Your task to perform on an android device: Set the phone to "Do not disturb". Image 0: 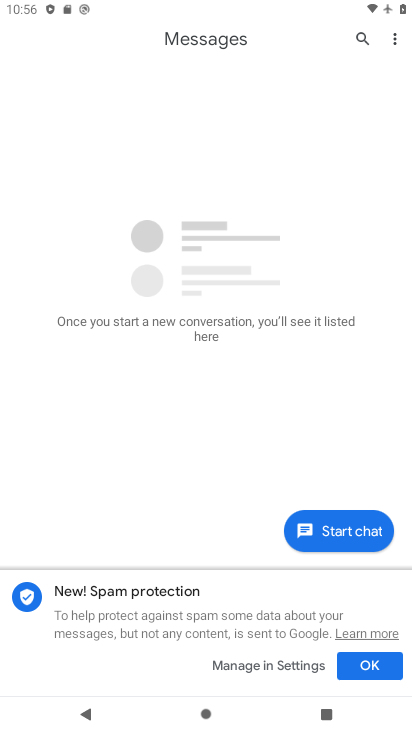
Step 0: press home button
Your task to perform on an android device: Set the phone to "Do not disturb". Image 1: 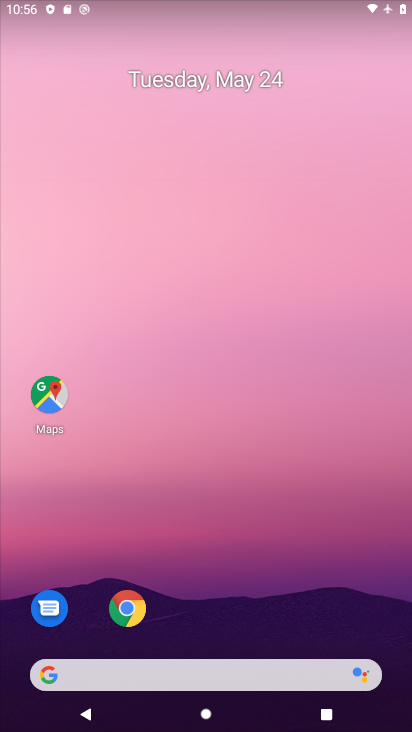
Step 1: drag from (383, 617) to (305, 135)
Your task to perform on an android device: Set the phone to "Do not disturb". Image 2: 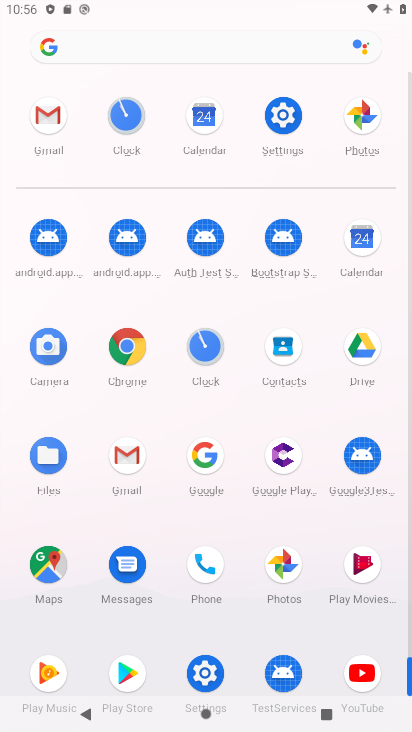
Step 2: click (199, 669)
Your task to perform on an android device: Set the phone to "Do not disturb". Image 3: 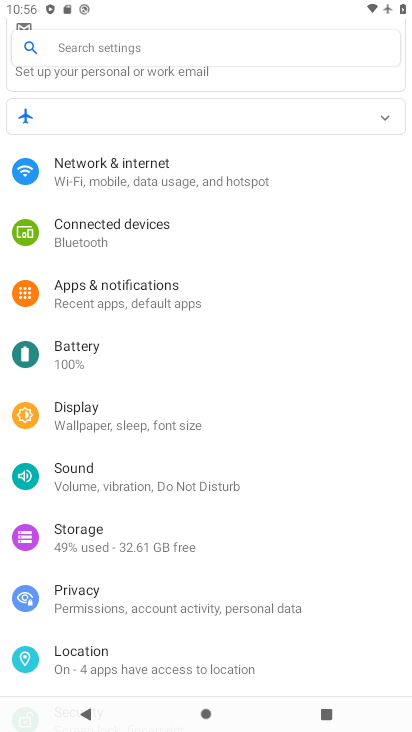
Step 3: click (78, 476)
Your task to perform on an android device: Set the phone to "Do not disturb". Image 4: 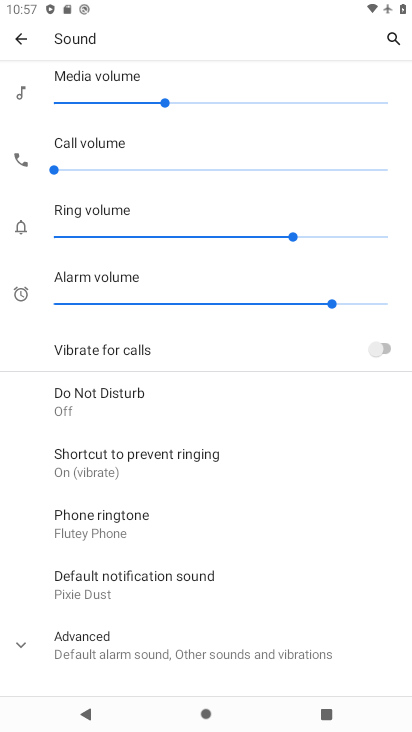
Step 4: click (91, 391)
Your task to perform on an android device: Set the phone to "Do not disturb". Image 5: 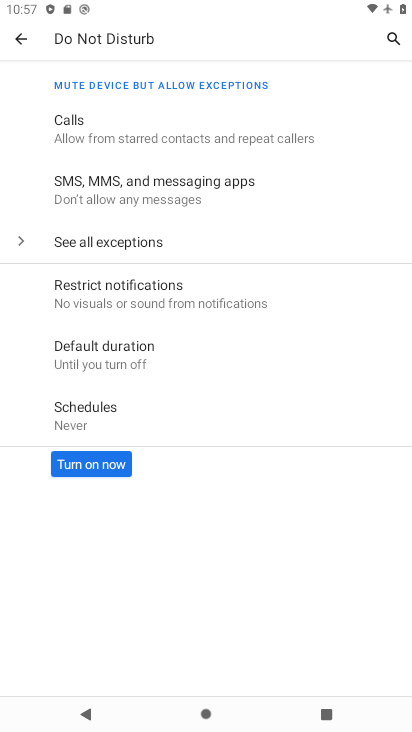
Step 5: click (98, 465)
Your task to perform on an android device: Set the phone to "Do not disturb". Image 6: 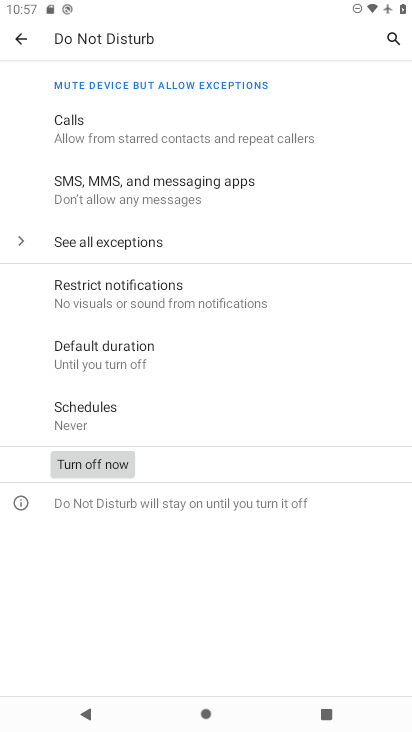
Step 6: task complete